Your task to perform on an android device: turn off location Image 0: 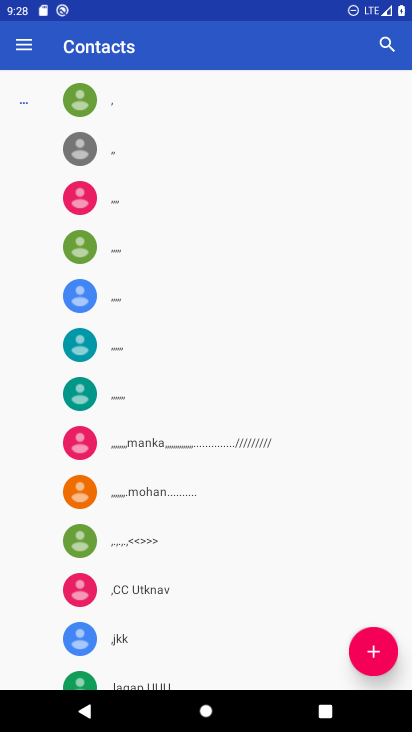
Step 0: press home button
Your task to perform on an android device: turn off location Image 1: 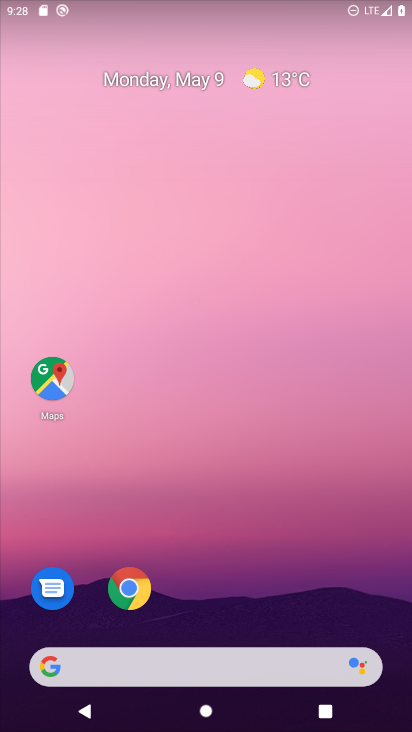
Step 1: drag from (245, 584) to (230, 248)
Your task to perform on an android device: turn off location Image 2: 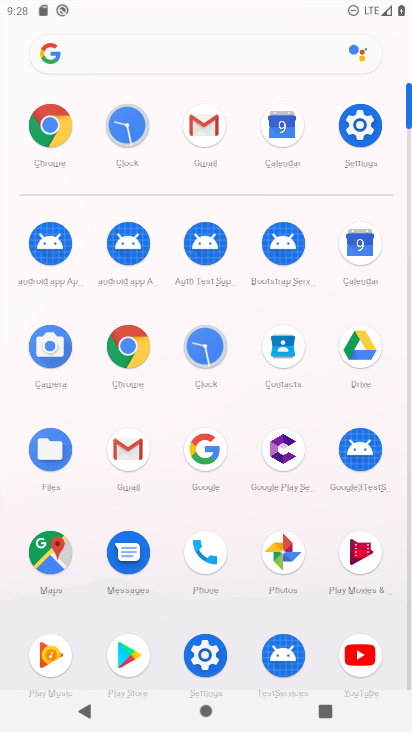
Step 2: click (350, 136)
Your task to perform on an android device: turn off location Image 3: 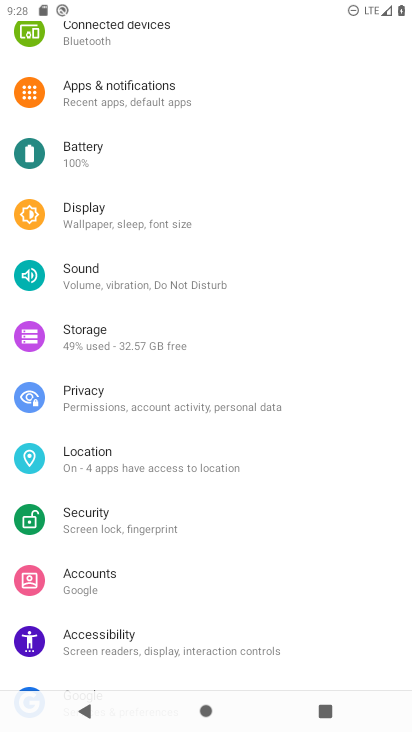
Step 3: click (133, 443)
Your task to perform on an android device: turn off location Image 4: 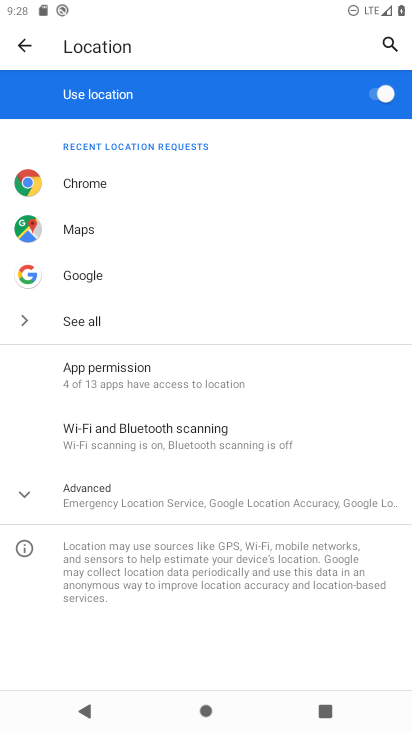
Step 4: click (391, 100)
Your task to perform on an android device: turn off location Image 5: 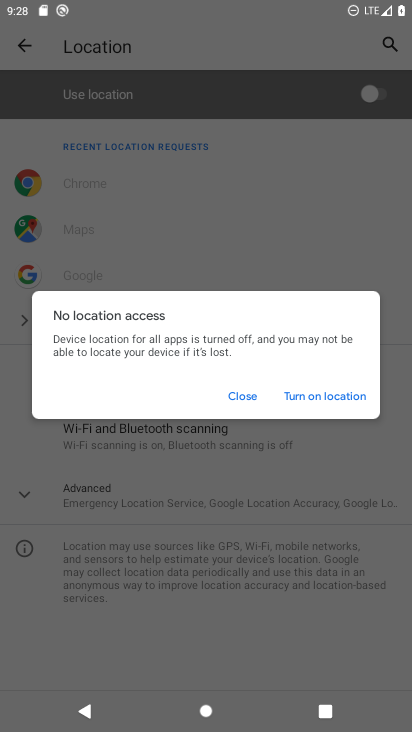
Step 5: task complete